Your task to perform on an android device: Go to eBay Image 0: 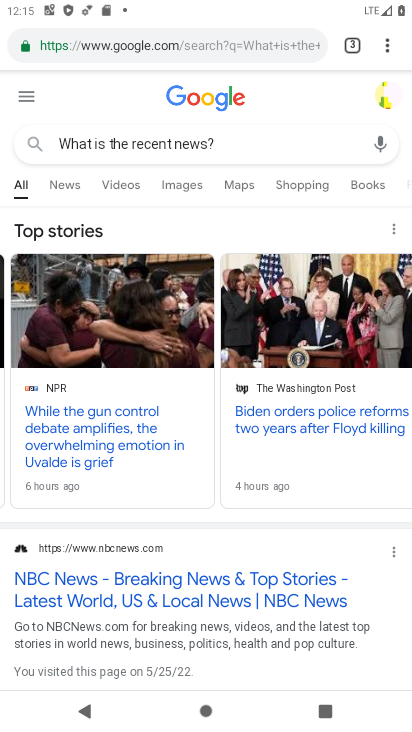
Step 0: press home button
Your task to perform on an android device: Go to eBay Image 1: 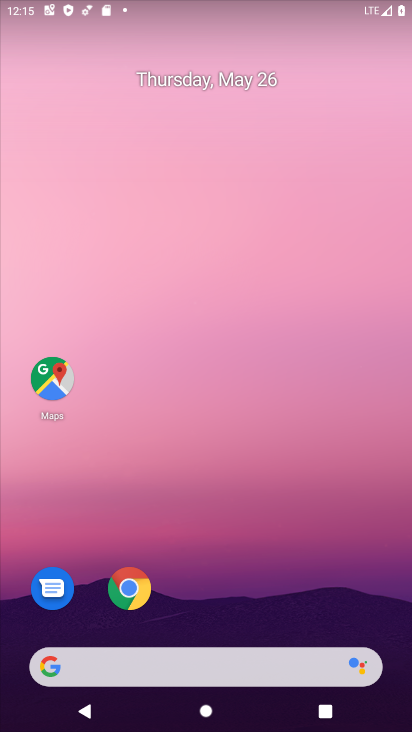
Step 1: drag from (233, 551) to (187, 12)
Your task to perform on an android device: Go to eBay Image 2: 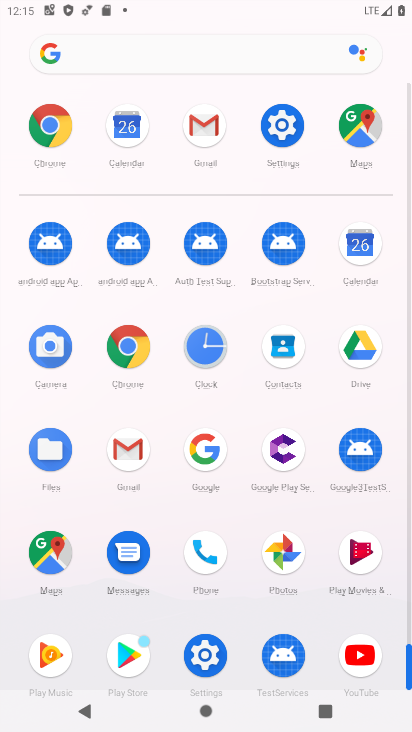
Step 2: click (118, 343)
Your task to perform on an android device: Go to eBay Image 3: 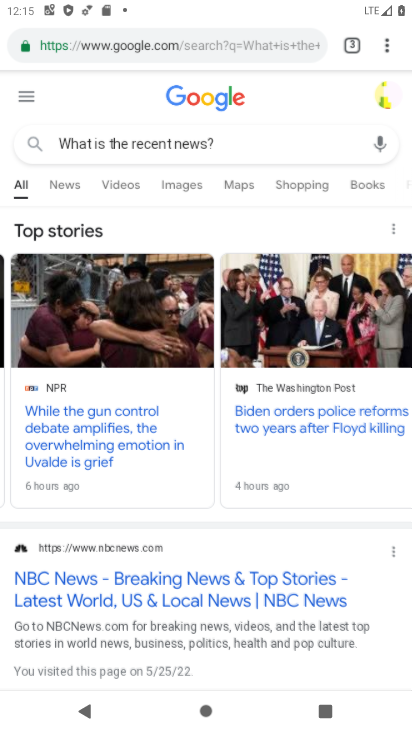
Step 3: click (195, 40)
Your task to perform on an android device: Go to eBay Image 4: 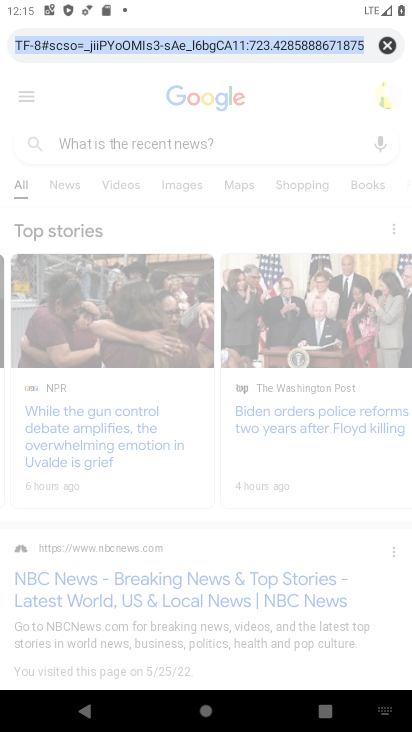
Step 4: click (388, 41)
Your task to perform on an android device: Go to eBay Image 5: 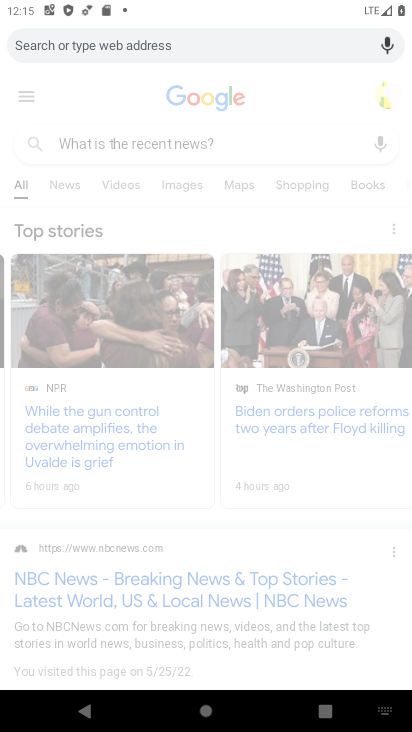
Step 5: type "What is the recent news?"
Your task to perform on an android device: Go to eBay Image 6: 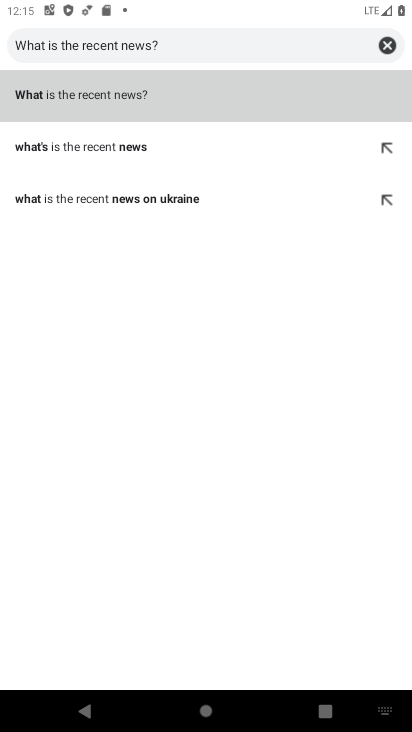
Step 6: click (382, 41)
Your task to perform on an android device: Go to eBay Image 7: 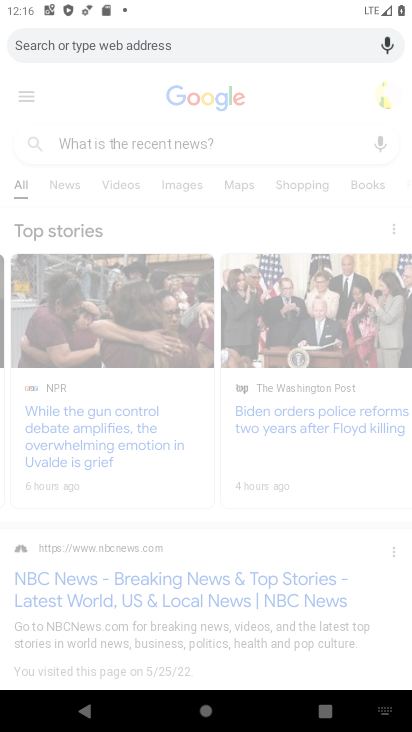
Step 7: type "eBay"
Your task to perform on an android device: Go to eBay Image 8: 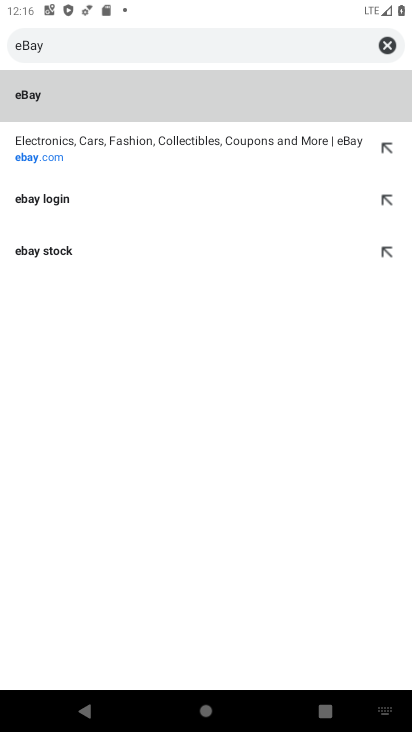
Step 8: click (116, 152)
Your task to perform on an android device: Go to eBay Image 9: 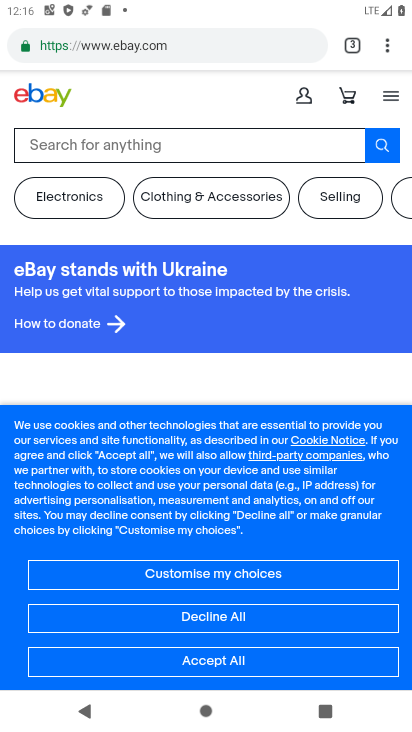
Step 9: task complete